Your task to perform on an android device: Go to Maps Image 0: 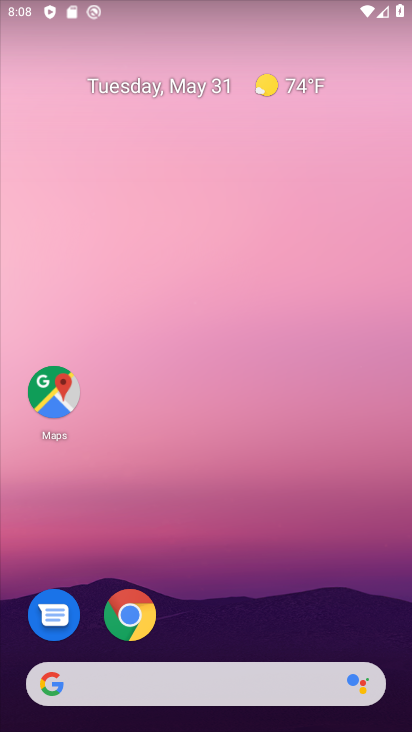
Step 0: click (57, 395)
Your task to perform on an android device: Go to Maps Image 1: 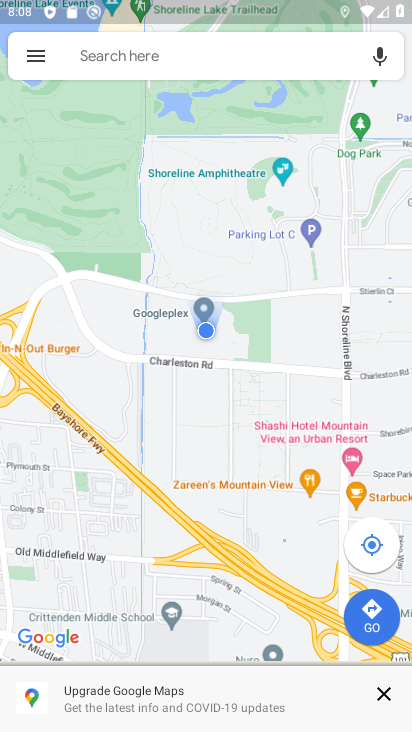
Step 1: task complete